Your task to perform on an android device: change the clock display to show seconds Image 0: 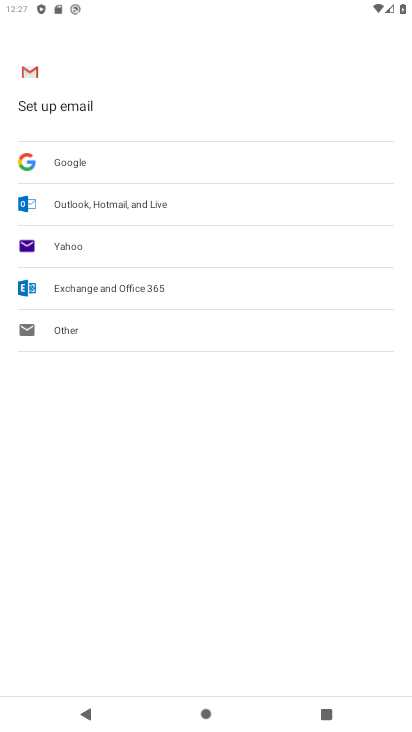
Step 0: press home button
Your task to perform on an android device: change the clock display to show seconds Image 1: 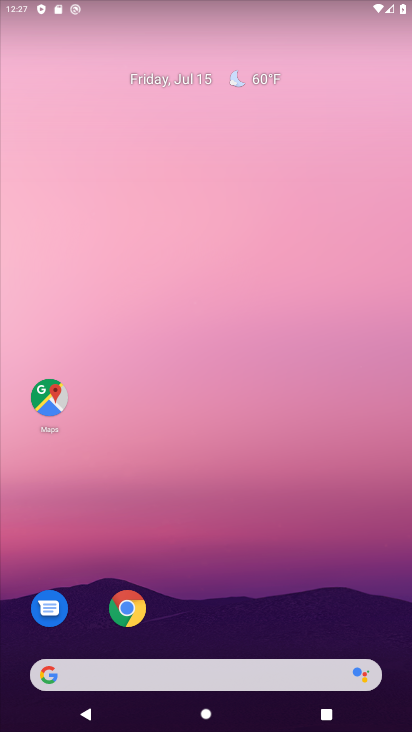
Step 1: drag from (251, 611) to (319, 90)
Your task to perform on an android device: change the clock display to show seconds Image 2: 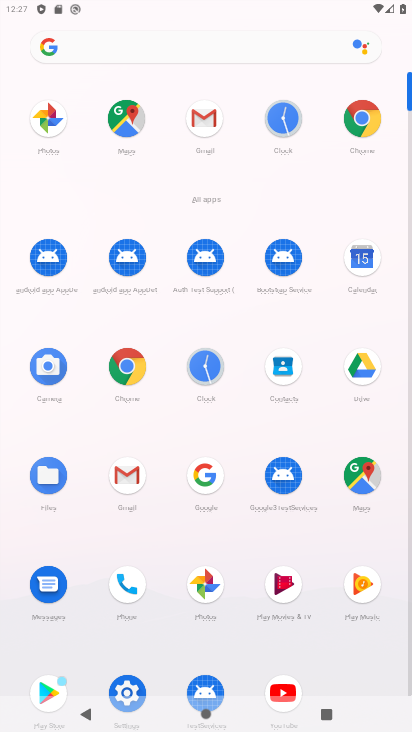
Step 2: click (123, 681)
Your task to perform on an android device: change the clock display to show seconds Image 3: 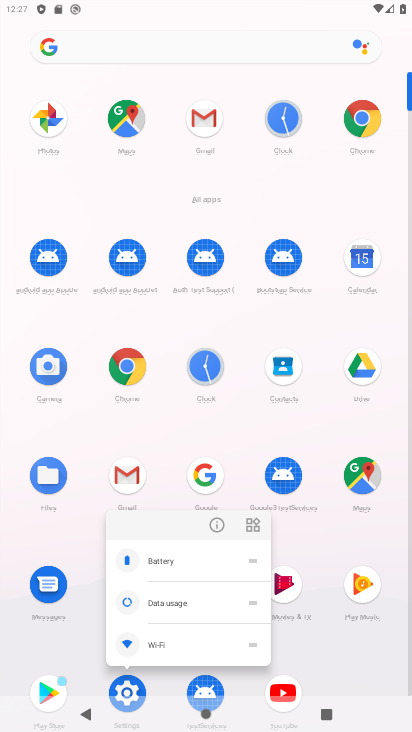
Step 3: click (199, 368)
Your task to perform on an android device: change the clock display to show seconds Image 4: 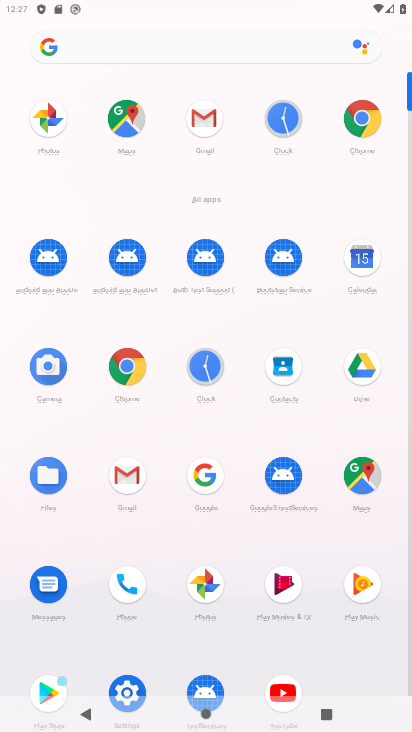
Step 4: click (199, 368)
Your task to perform on an android device: change the clock display to show seconds Image 5: 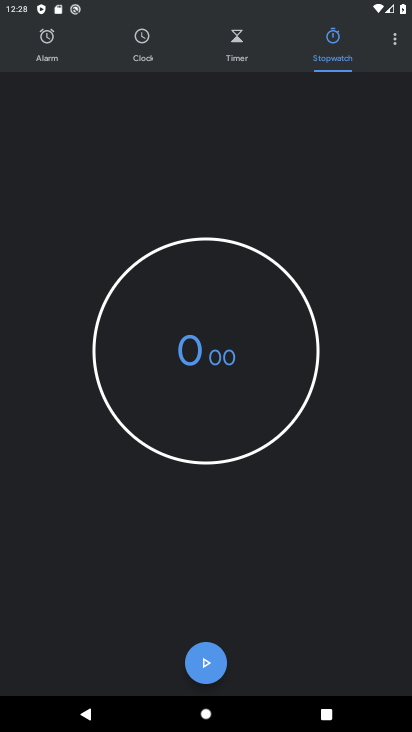
Step 5: click (396, 42)
Your task to perform on an android device: change the clock display to show seconds Image 6: 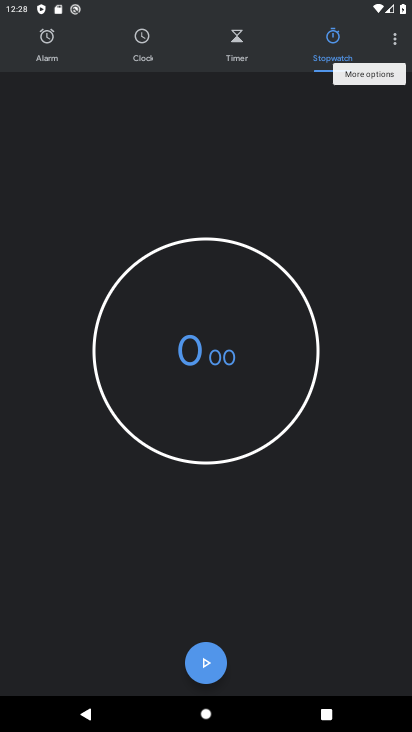
Step 6: click (396, 42)
Your task to perform on an android device: change the clock display to show seconds Image 7: 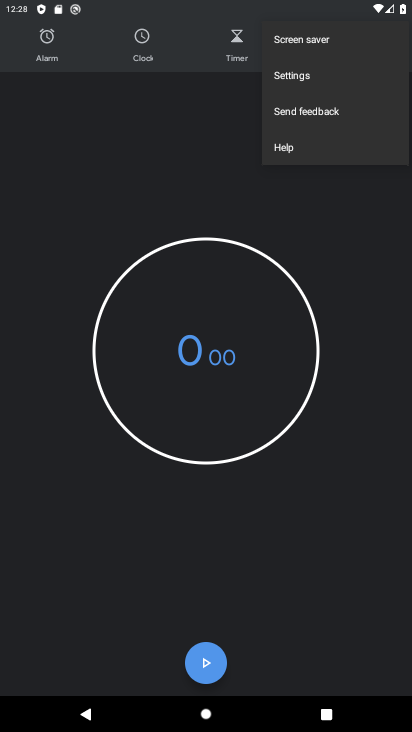
Step 7: click (307, 80)
Your task to perform on an android device: change the clock display to show seconds Image 8: 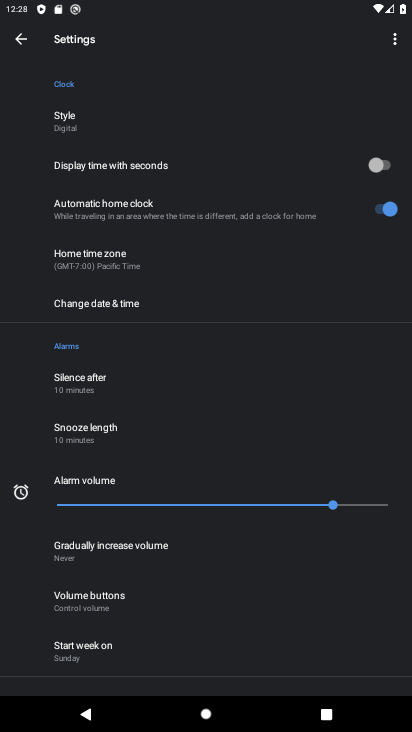
Step 8: click (312, 165)
Your task to perform on an android device: change the clock display to show seconds Image 9: 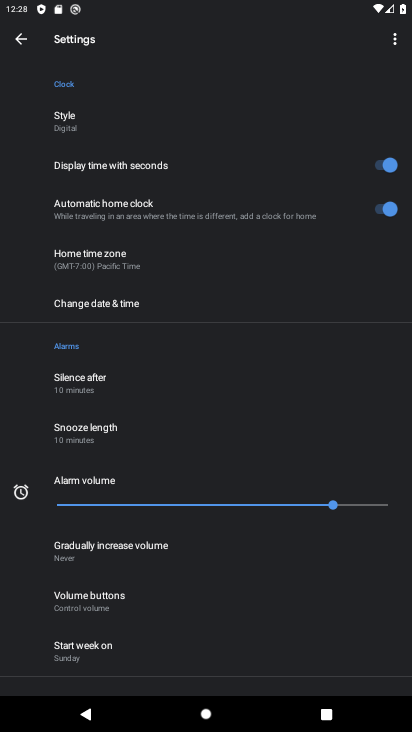
Step 9: task complete